Your task to perform on an android device: open a bookmark in the chrome app Image 0: 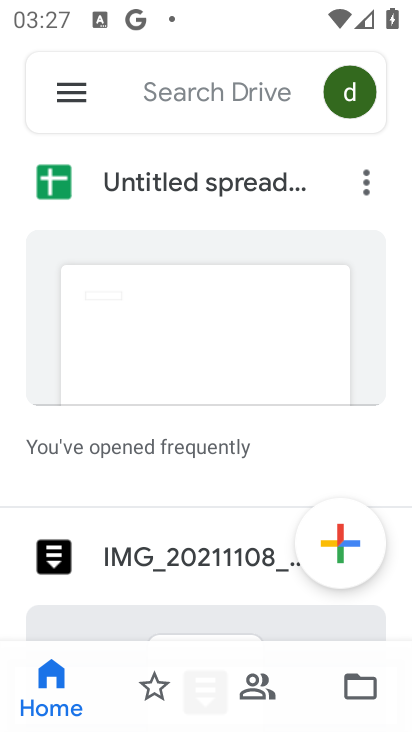
Step 0: press home button
Your task to perform on an android device: open a bookmark in the chrome app Image 1: 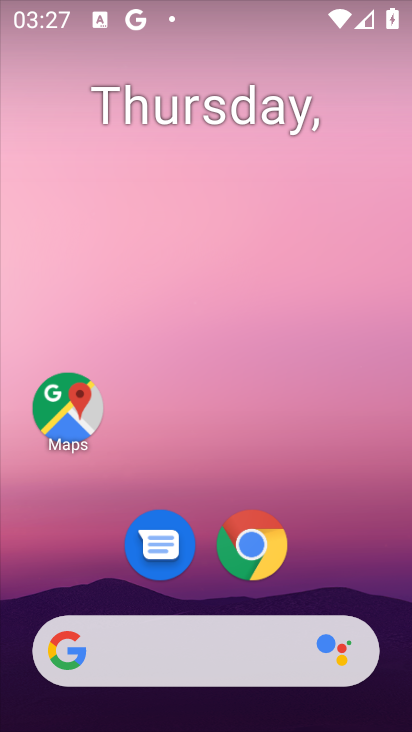
Step 1: click (255, 562)
Your task to perform on an android device: open a bookmark in the chrome app Image 2: 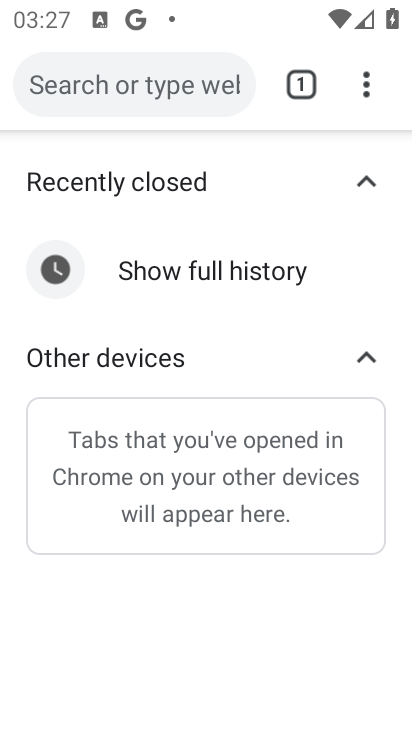
Step 2: click (361, 79)
Your task to perform on an android device: open a bookmark in the chrome app Image 3: 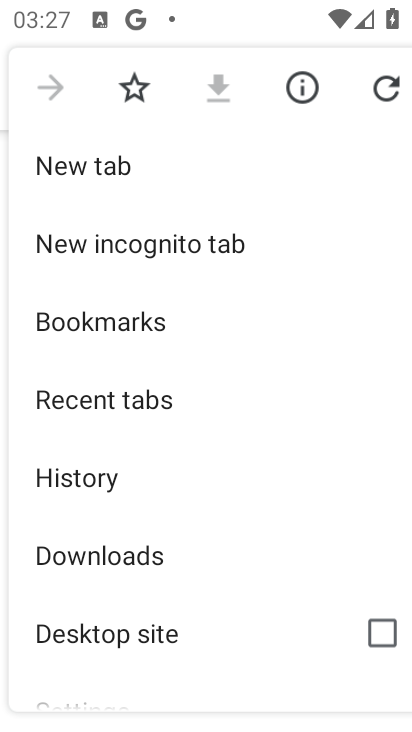
Step 3: click (167, 312)
Your task to perform on an android device: open a bookmark in the chrome app Image 4: 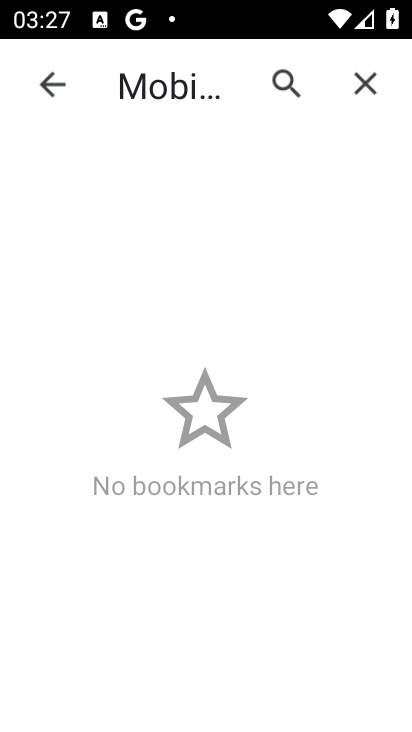
Step 4: task complete